Your task to perform on an android device: Check the weather Image 0: 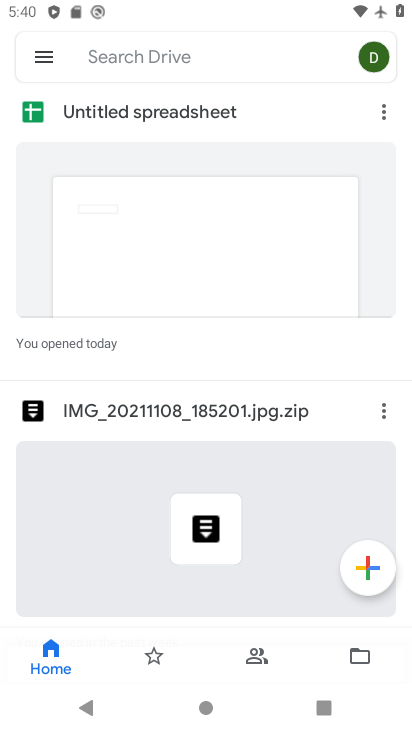
Step 0: press back button
Your task to perform on an android device: Check the weather Image 1: 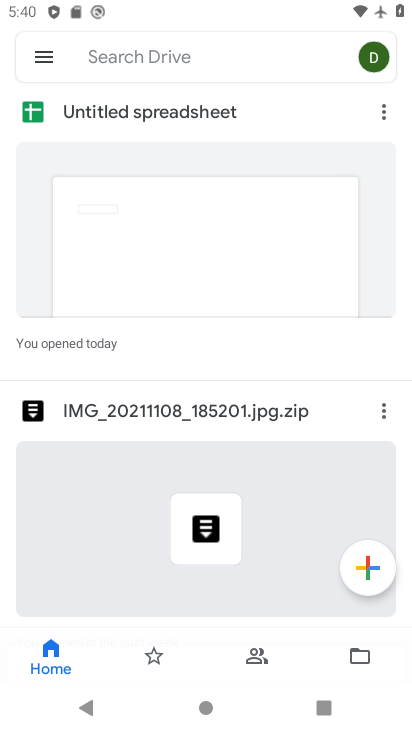
Step 1: press back button
Your task to perform on an android device: Check the weather Image 2: 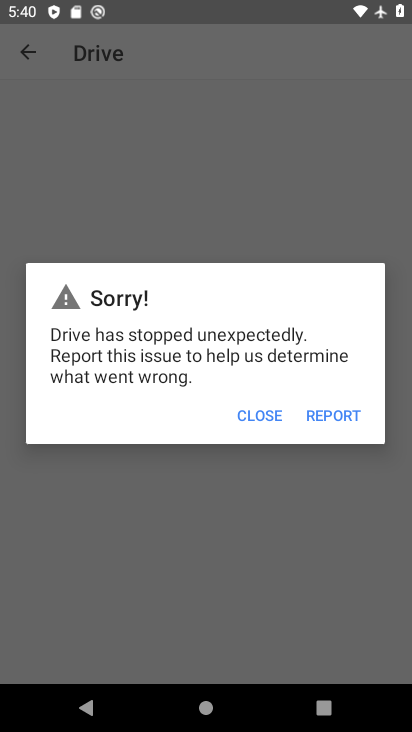
Step 2: press back button
Your task to perform on an android device: Check the weather Image 3: 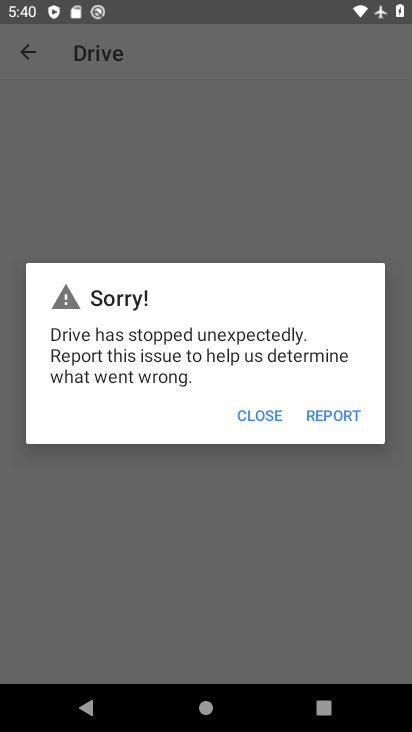
Step 3: click (234, 410)
Your task to perform on an android device: Check the weather Image 4: 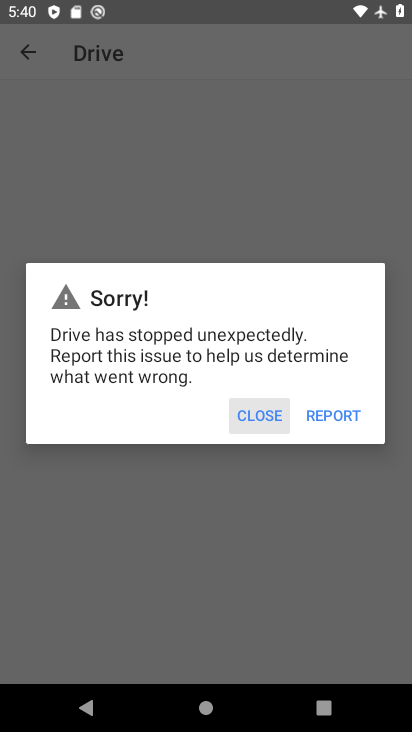
Step 4: click (235, 410)
Your task to perform on an android device: Check the weather Image 5: 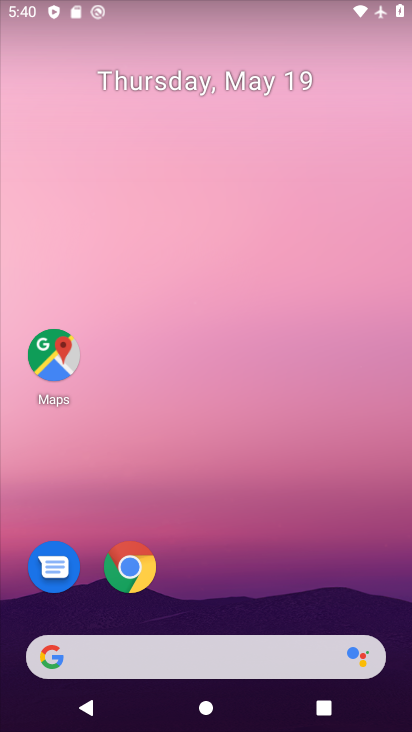
Step 5: drag from (5, 236) to (410, 359)
Your task to perform on an android device: Check the weather Image 6: 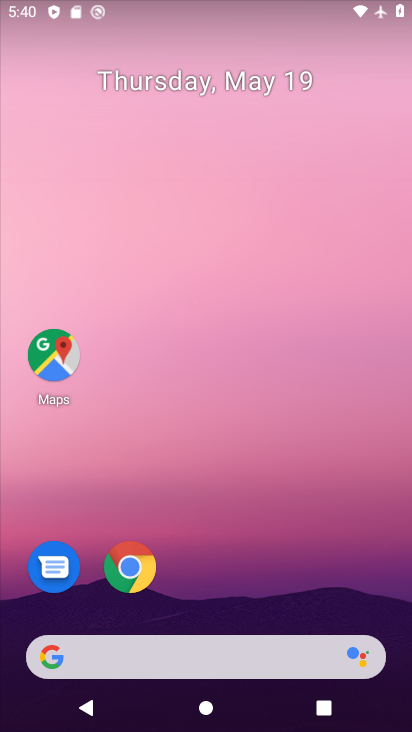
Step 6: drag from (38, 225) to (402, 367)
Your task to perform on an android device: Check the weather Image 7: 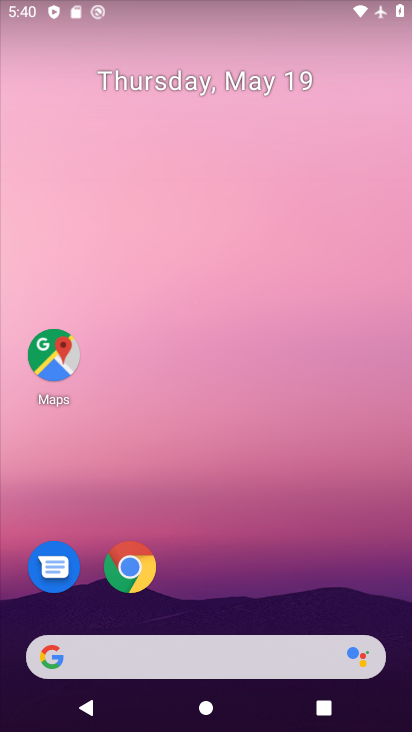
Step 7: drag from (28, 196) to (400, 416)
Your task to perform on an android device: Check the weather Image 8: 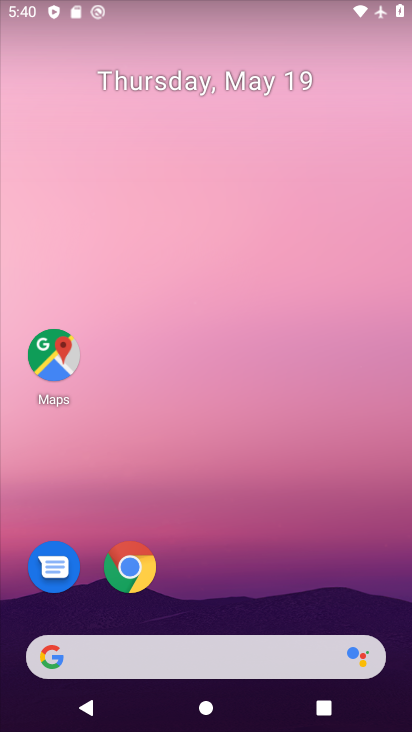
Step 8: drag from (279, 372) to (399, 468)
Your task to perform on an android device: Check the weather Image 9: 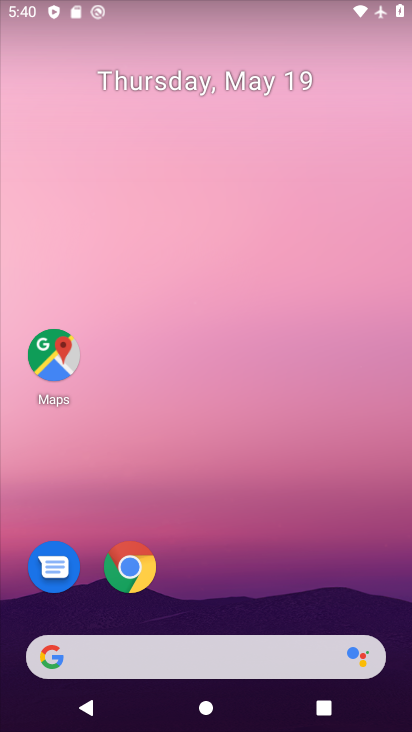
Step 9: drag from (340, 380) to (403, 409)
Your task to perform on an android device: Check the weather Image 10: 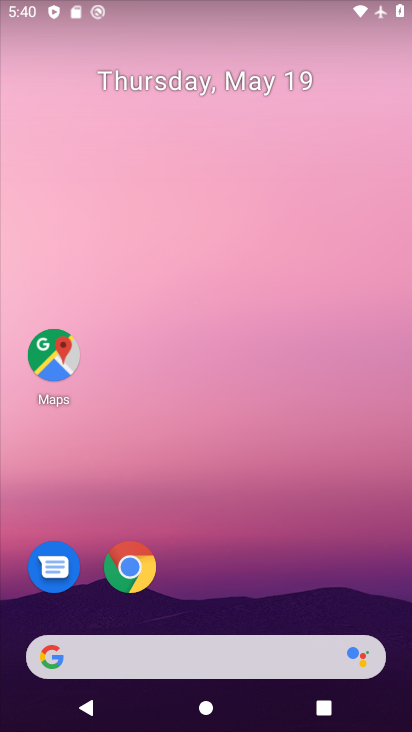
Step 10: drag from (276, 317) to (355, 343)
Your task to perform on an android device: Check the weather Image 11: 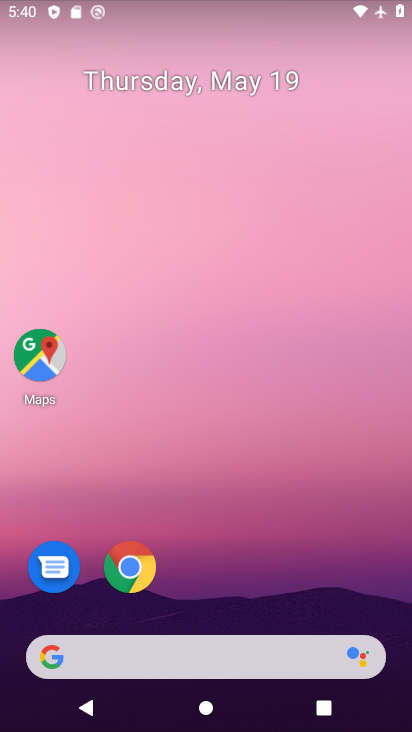
Step 11: drag from (328, 373) to (411, 365)
Your task to perform on an android device: Check the weather Image 12: 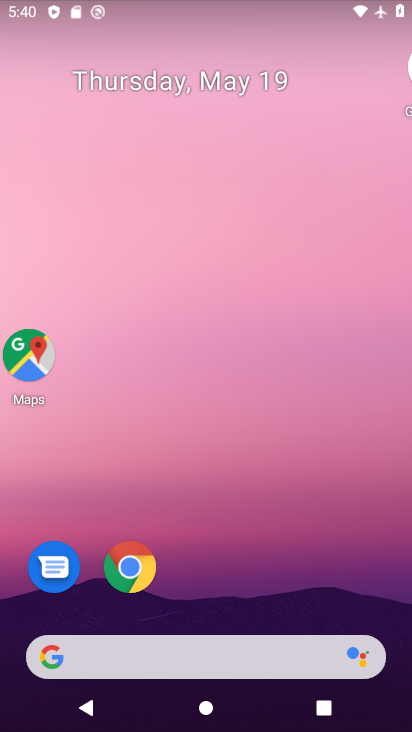
Step 12: drag from (22, 277) to (406, 316)
Your task to perform on an android device: Check the weather Image 13: 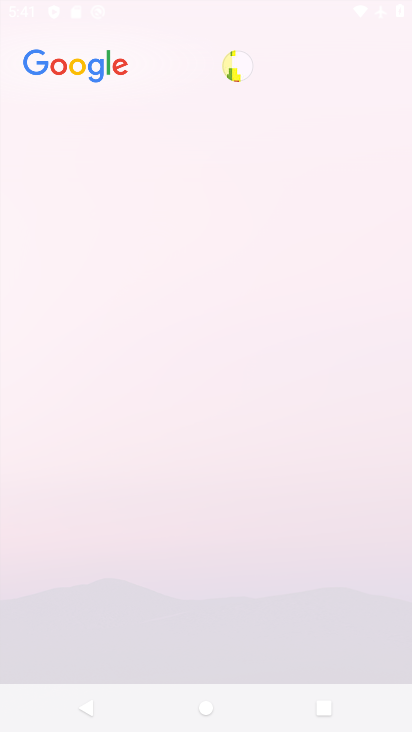
Step 13: drag from (376, 351) to (352, 306)
Your task to perform on an android device: Check the weather Image 14: 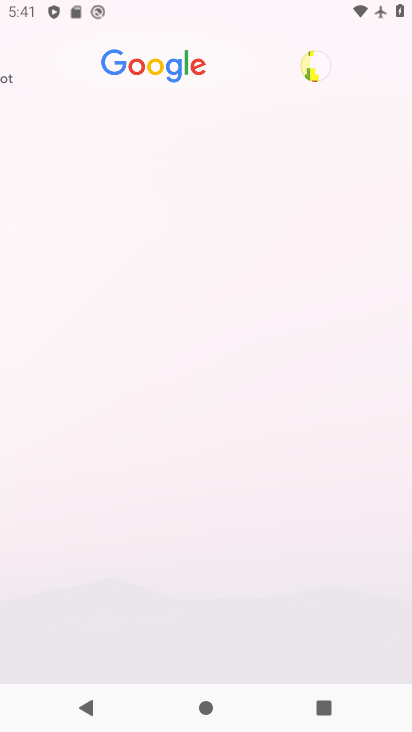
Step 14: drag from (20, 184) to (327, 375)
Your task to perform on an android device: Check the weather Image 15: 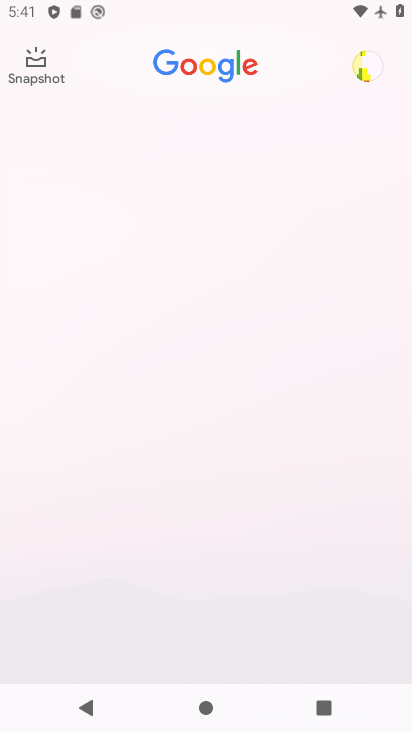
Step 15: drag from (301, 348) to (373, 365)
Your task to perform on an android device: Check the weather Image 16: 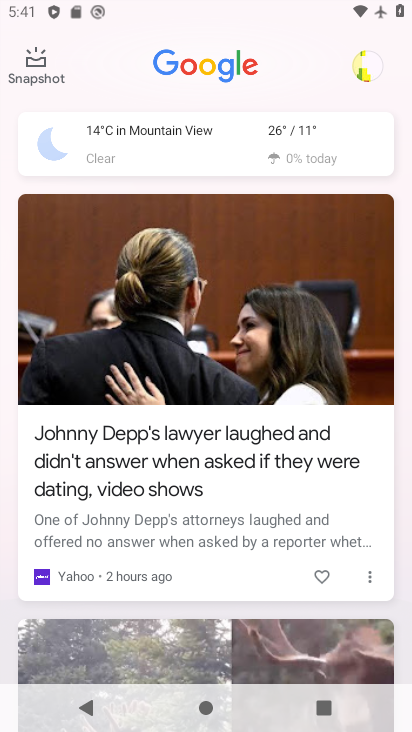
Step 16: click (185, 134)
Your task to perform on an android device: Check the weather Image 17: 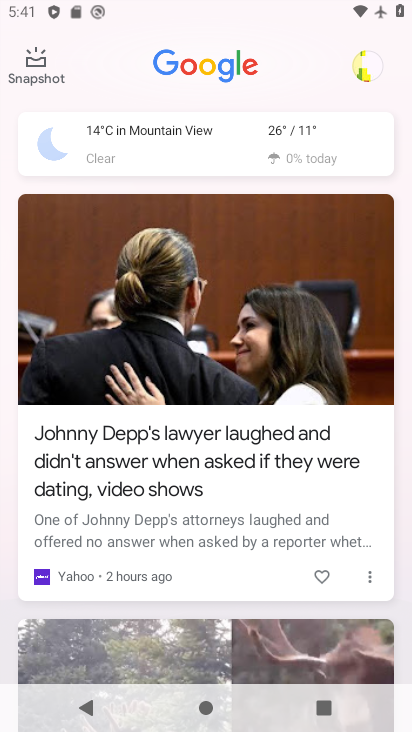
Step 17: click (184, 134)
Your task to perform on an android device: Check the weather Image 18: 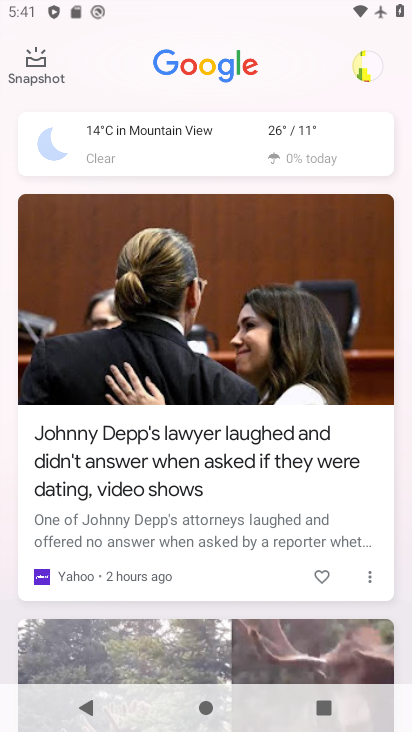
Step 18: click (181, 136)
Your task to perform on an android device: Check the weather Image 19: 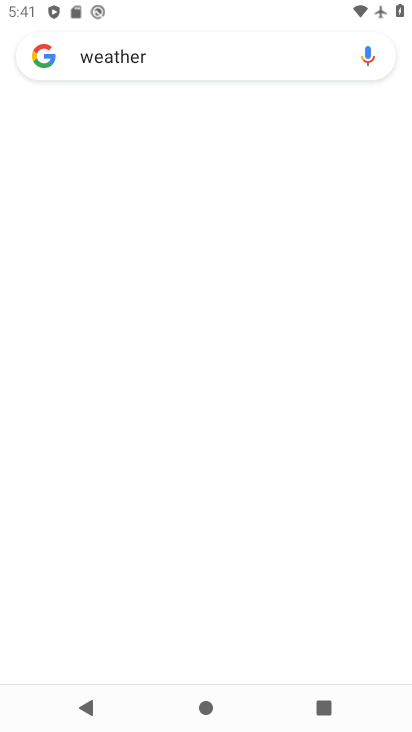
Step 19: click (182, 133)
Your task to perform on an android device: Check the weather Image 20: 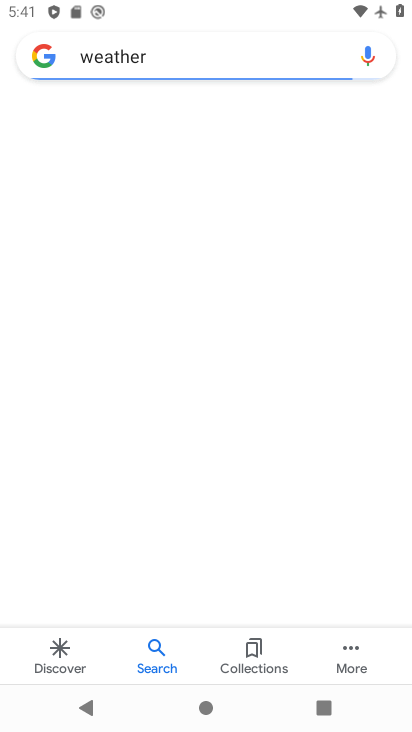
Step 20: click (188, 131)
Your task to perform on an android device: Check the weather Image 21: 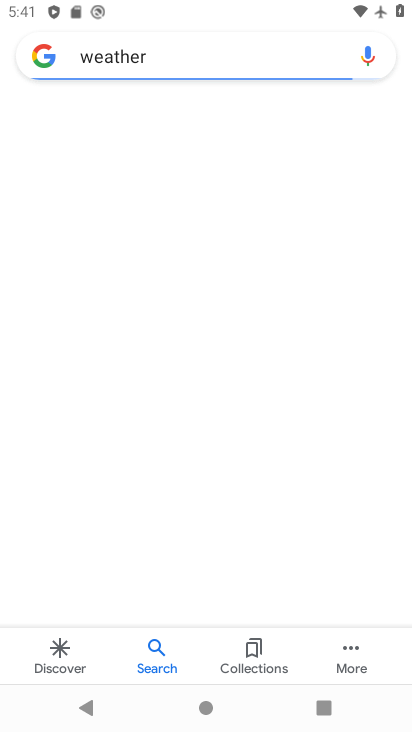
Step 21: task complete